Your task to perform on an android device: Go to eBay Image 0: 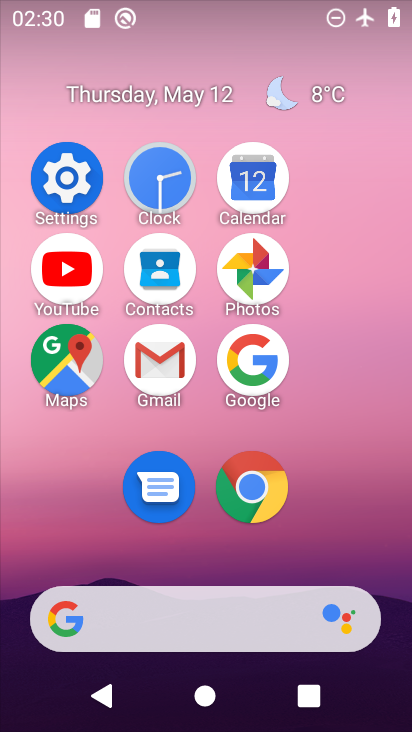
Step 0: click (252, 480)
Your task to perform on an android device: Go to eBay Image 1: 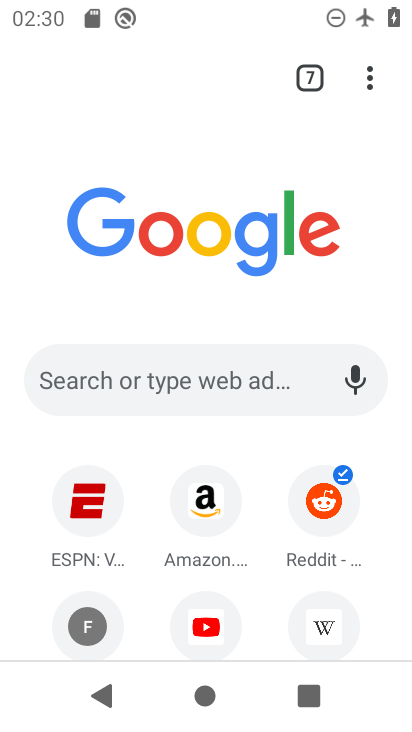
Step 1: click (168, 373)
Your task to perform on an android device: Go to eBay Image 2: 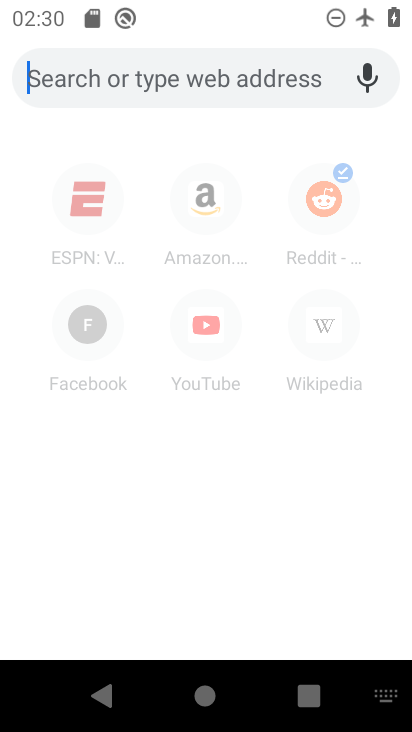
Step 2: type "ebay"
Your task to perform on an android device: Go to eBay Image 3: 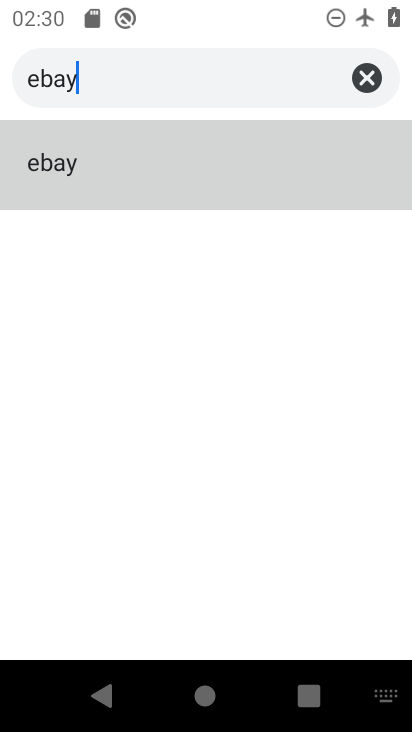
Step 3: click (55, 170)
Your task to perform on an android device: Go to eBay Image 4: 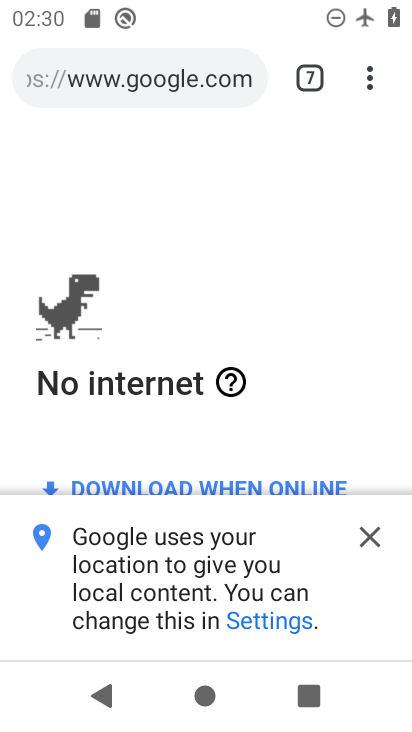
Step 4: task complete